Your task to perform on an android device: toggle notification dots Image 0: 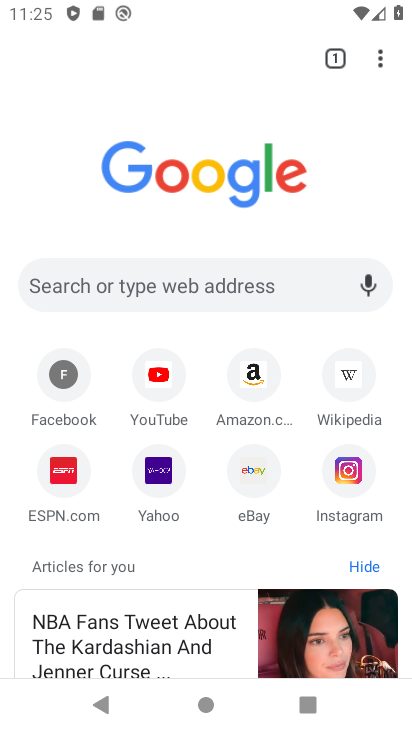
Step 0: click (377, 56)
Your task to perform on an android device: toggle notification dots Image 1: 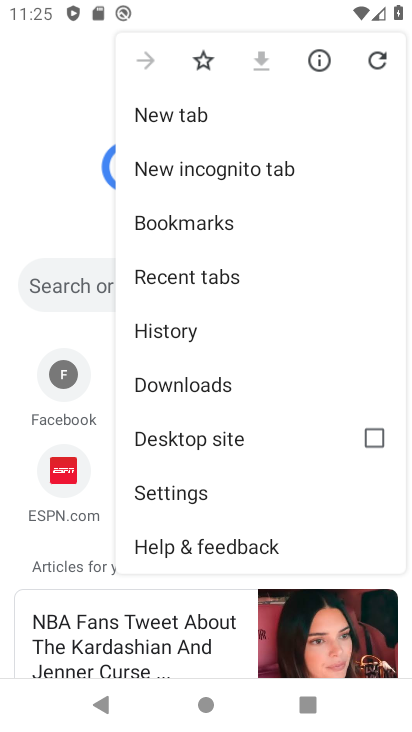
Step 1: click (176, 495)
Your task to perform on an android device: toggle notification dots Image 2: 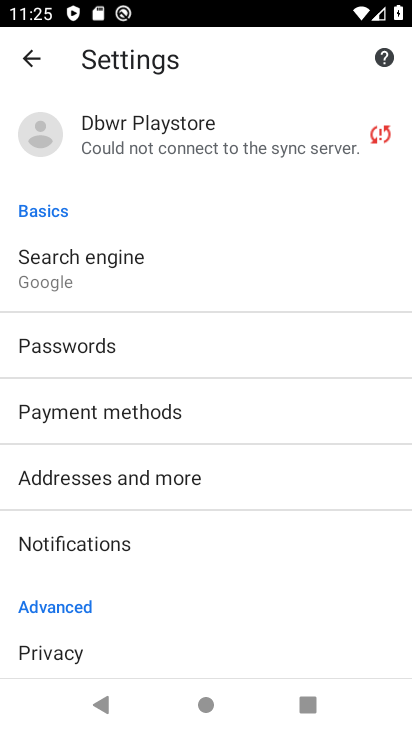
Step 2: press home button
Your task to perform on an android device: toggle notification dots Image 3: 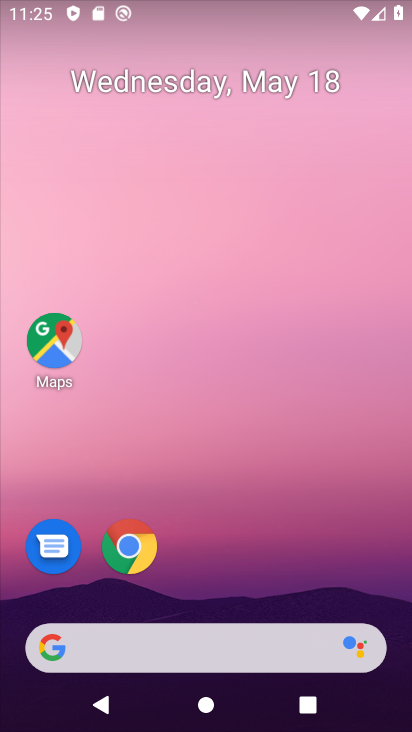
Step 3: drag from (395, 652) to (371, 97)
Your task to perform on an android device: toggle notification dots Image 4: 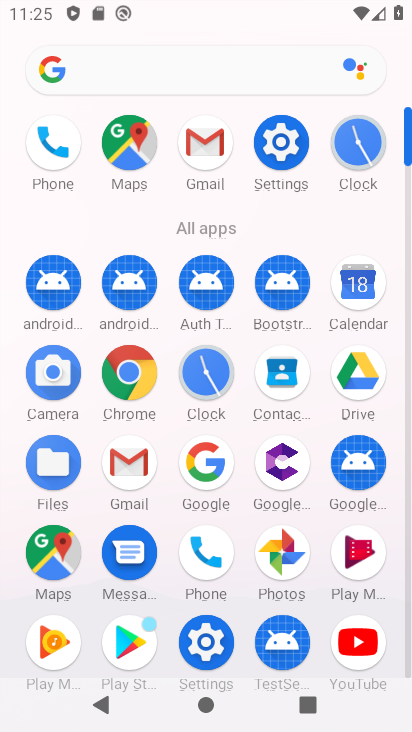
Step 4: click (275, 149)
Your task to perform on an android device: toggle notification dots Image 5: 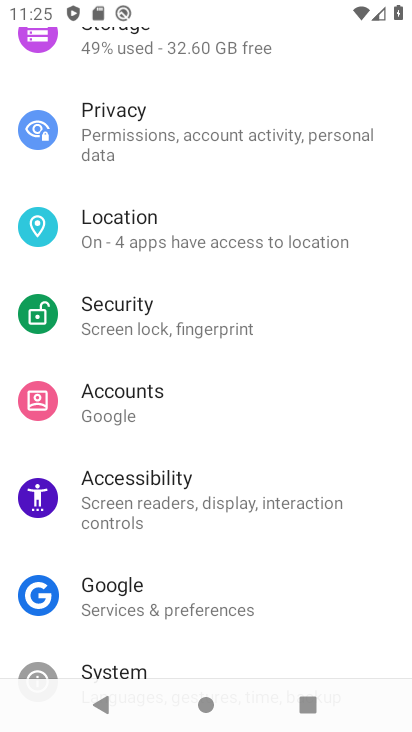
Step 5: drag from (269, 85) to (245, 548)
Your task to perform on an android device: toggle notification dots Image 6: 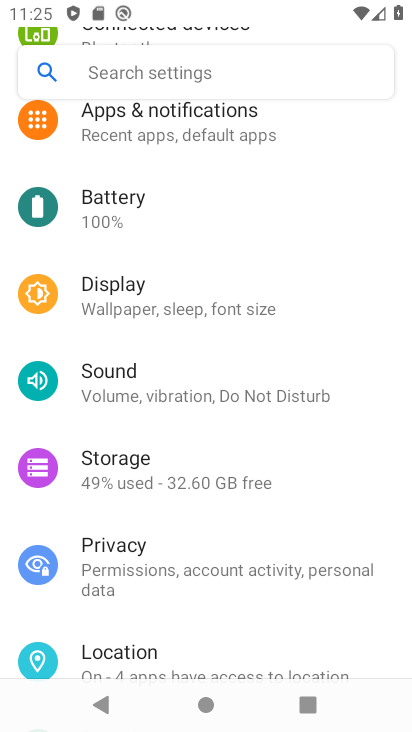
Step 6: click (130, 128)
Your task to perform on an android device: toggle notification dots Image 7: 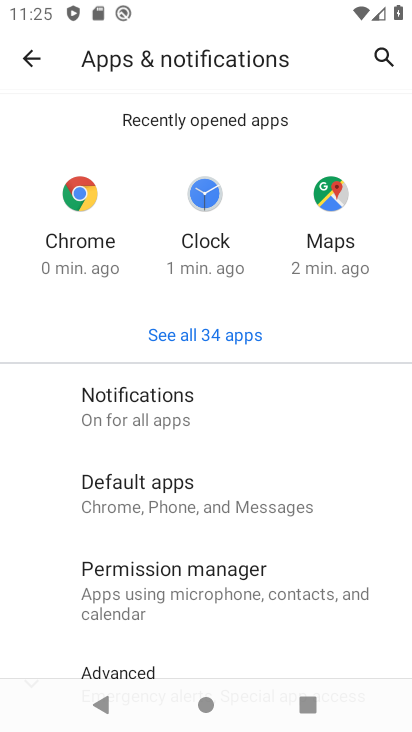
Step 7: drag from (324, 559) to (318, 184)
Your task to perform on an android device: toggle notification dots Image 8: 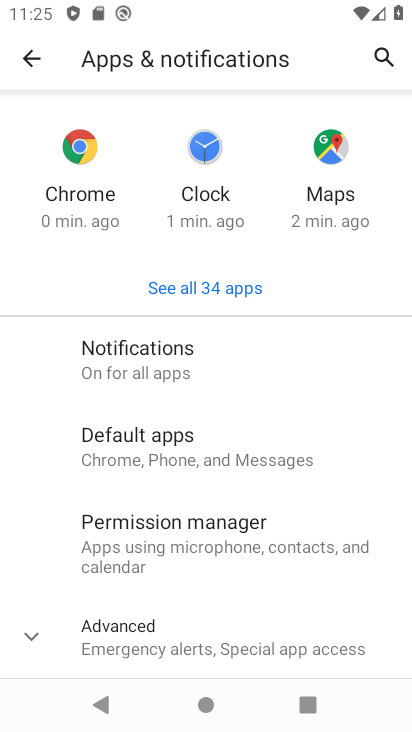
Step 8: click (131, 356)
Your task to perform on an android device: toggle notification dots Image 9: 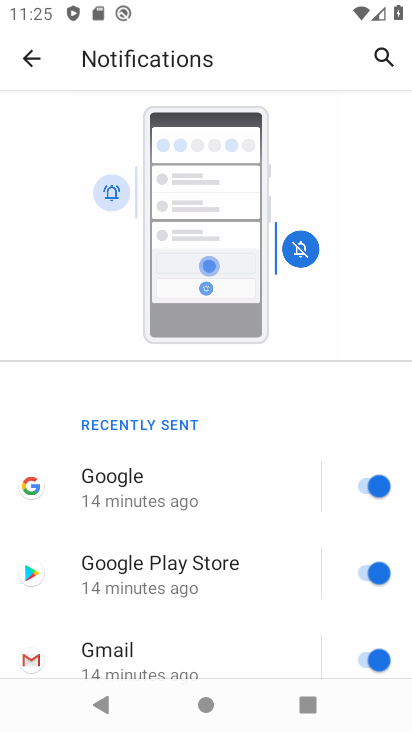
Step 9: drag from (275, 650) to (275, 402)
Your task to perform on an android device: toggle notification dots Image 10: 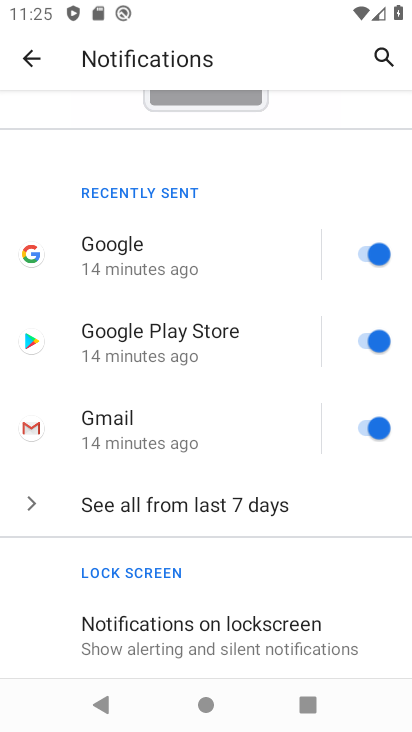
Step 10: drag from (262, 633) to (276, 372)
Your task to perform on an android device: toggle notification dots Image 11: 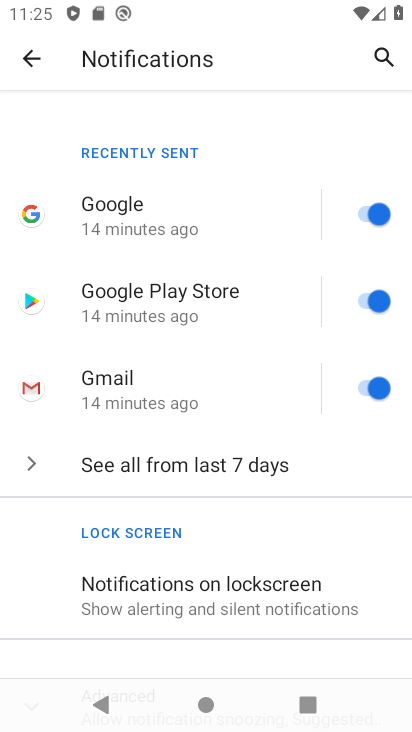
Step 11: drag from (222, 604) to (216, 294)
Your task to perform on an android device: toggle notification dots Image 12: 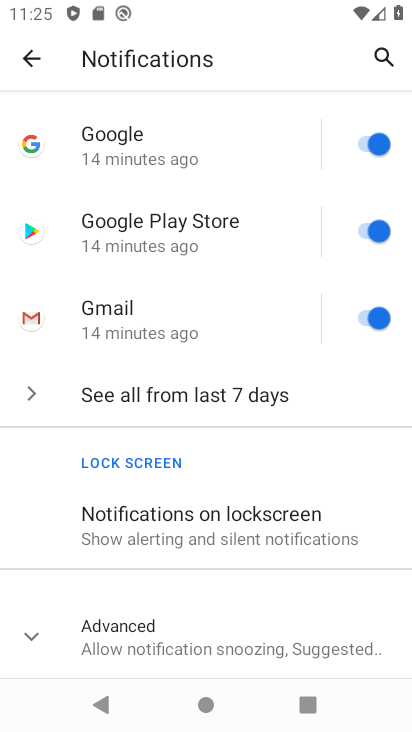
Step 12: click (47, 633)
Your task to perform on an android device: toggle notification dots Image 13: 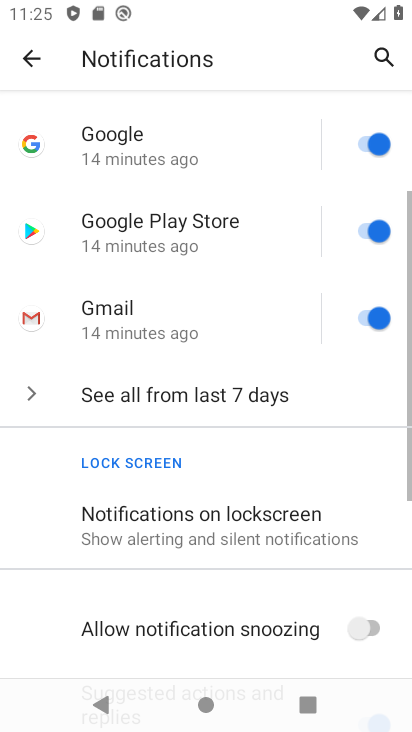
Step 13: drag from (256, 633) to (242, 265)
Your task to perform on an android device: toggle notification dots Image 14: 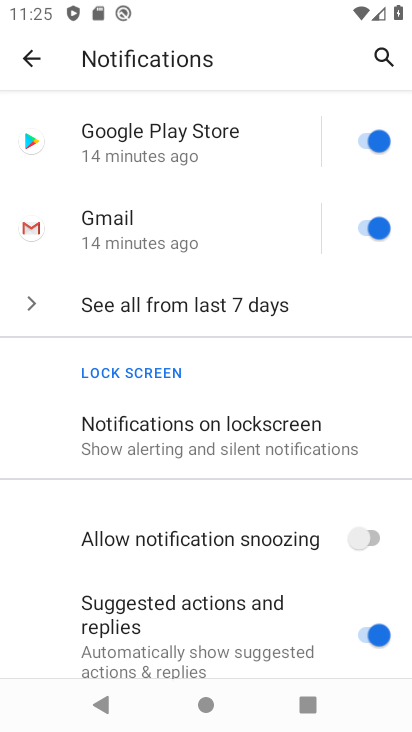
Step 14: drag from (231, 599) to (228, 351)
Your task to perform on an android device: toggle notification dots Image 15: 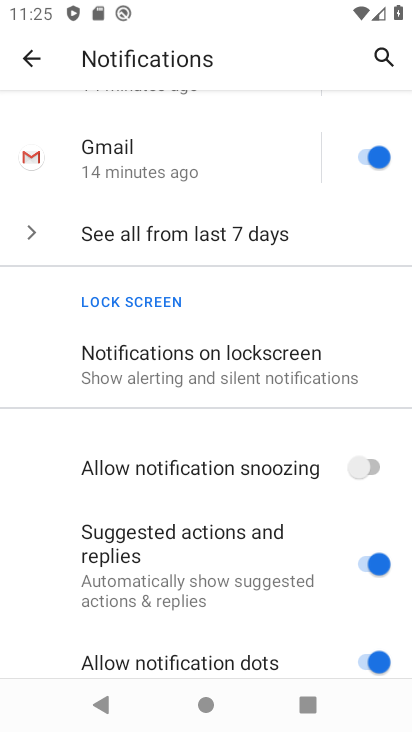
Step 15: drag from (212, 644) to (215, 428)
Your task to perform on an android device: toggle notification dots Image 16: 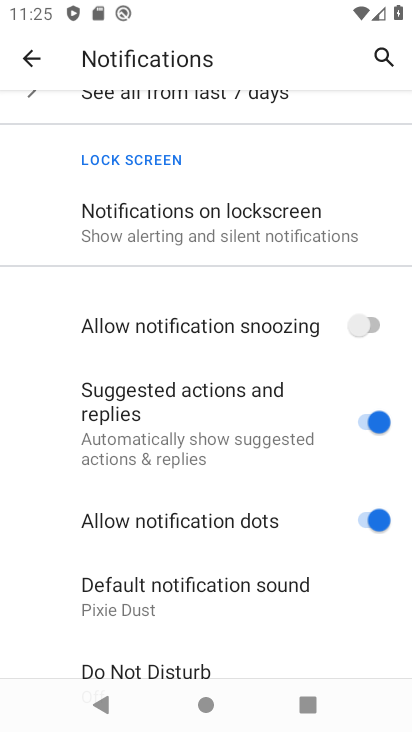
Step 16: drag from (246, 650) to (280, 393)
Your task to perform on an android device: toggle notification dots Image 17: 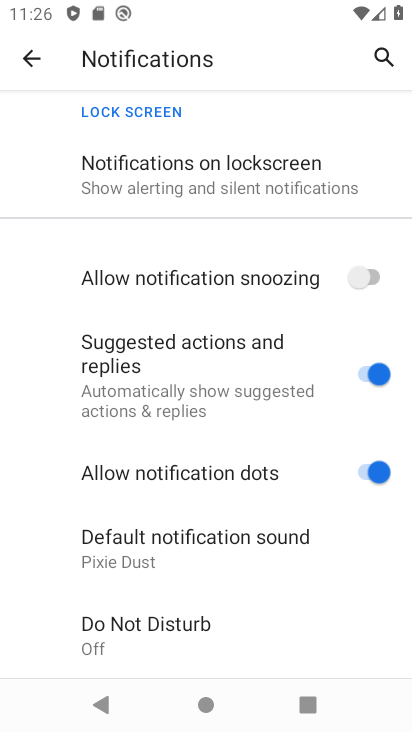
Step 17: click (361, 470)
Your task to perform on an android device: toggle notification dots Image 18: 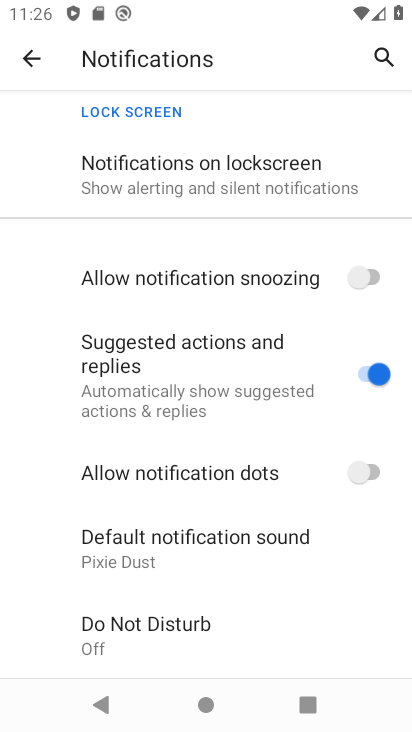
Step 18: task complete